Your task to perform on an android device: Open my contact list Image 0: 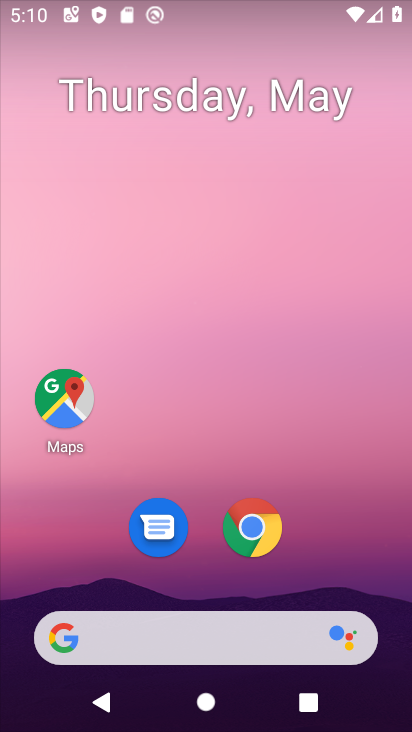
Step 0: drag from (340, 535) to (303, 48)
Your task to perform on an android device: Open my contact list Image 1: 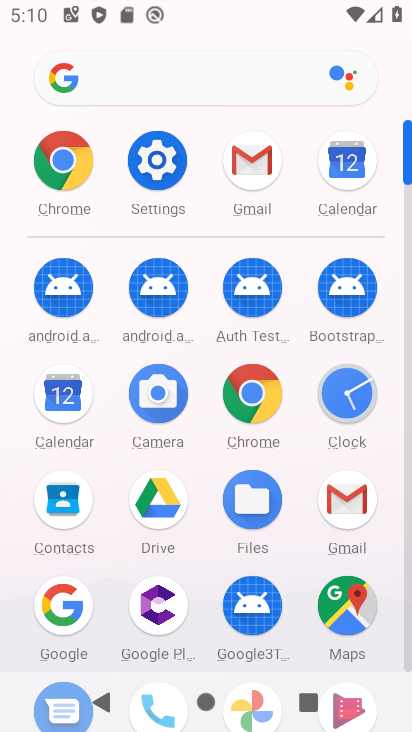
Step 1: drag from (392, 605) to (358, 286)
Your task to perform on an android device: Open my contact list Image 2: 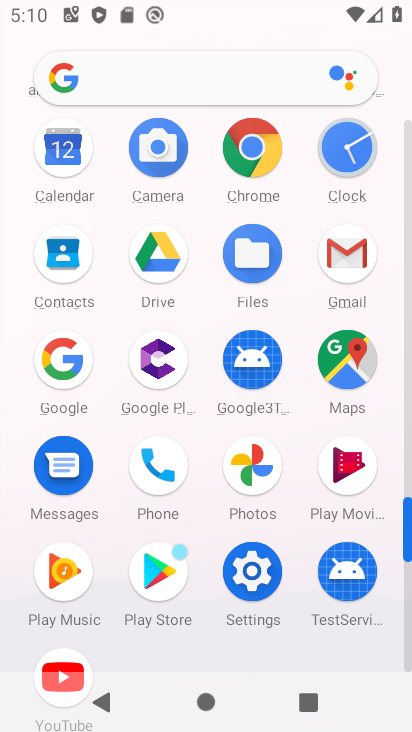
Step 2: click (152, 469)
Your task to perform on an android device: Open my contact list Image 3: 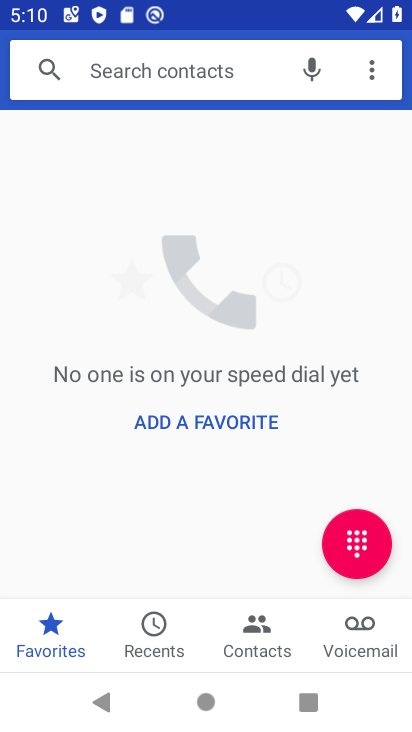
Step 3: click (246, 641)
Your task to perform on an android device: Open my contact list Image 4: 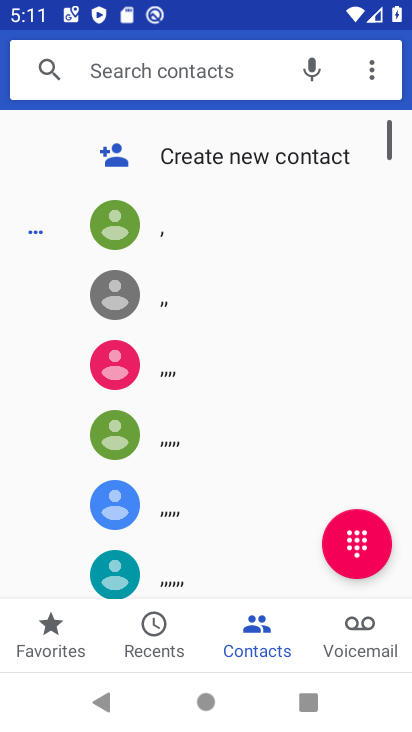
Step 4: task complete